Your task to perform on an android device: turn on the 24-hour format for clock Image 0: 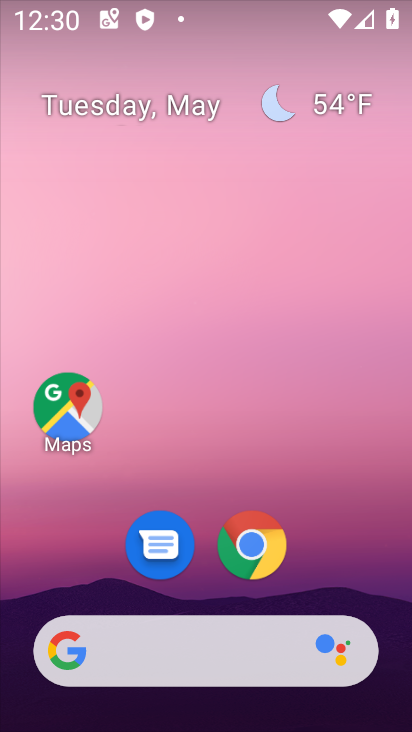
Step 0: drag from (337, 592) to (306, 102)
Your task to perform on an android device: turn on the 24-hour format for clock Image 1: 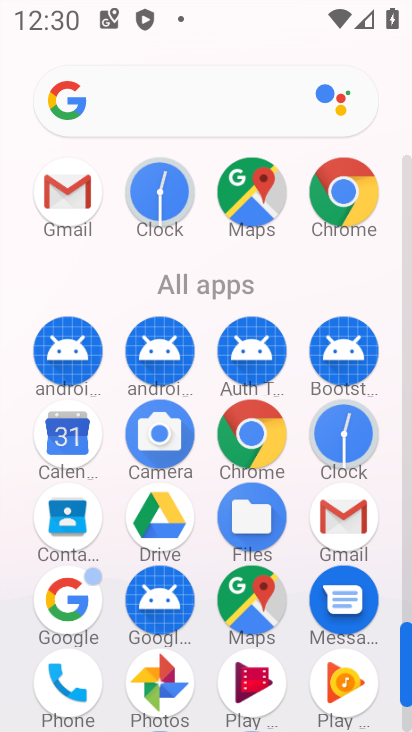
Step 1: click (330, 424)
Your task to perform on an android device: turn on the 24-hour format for clock Image 2: 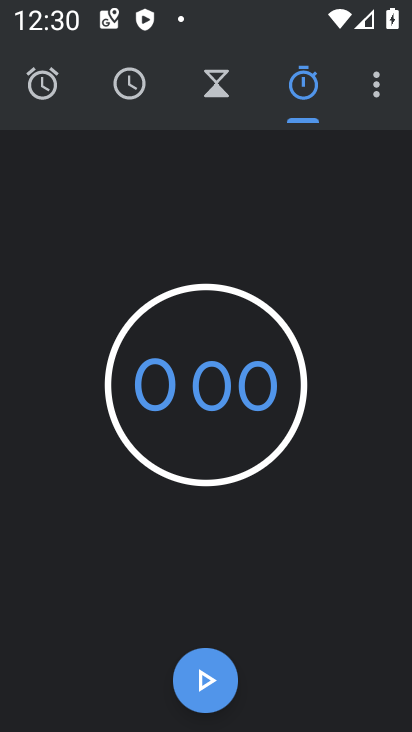
Step 2: click (372, 92)
Your task to perform on an android device: turn on the 24-hour format for clock Image 3: 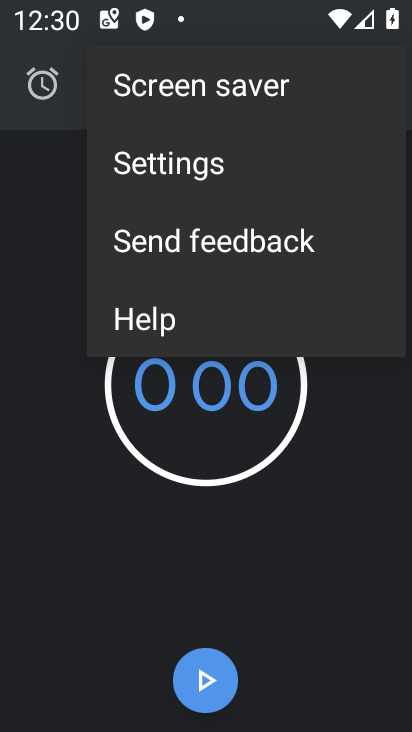
Step 3: click (224, 185)
Your task to perform on an android device: turn on the 24-hour format for clock Image 4: 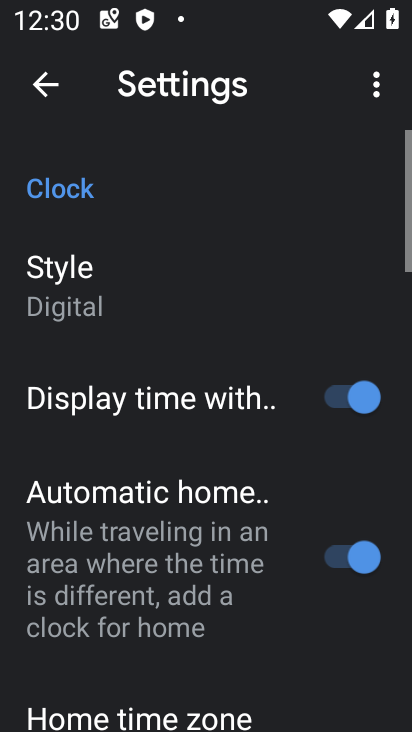
Step 4: drag from (213, 375) to (207, 53)
Your task to perform on an android device: turn on the 24-hour format for clock Image 5: 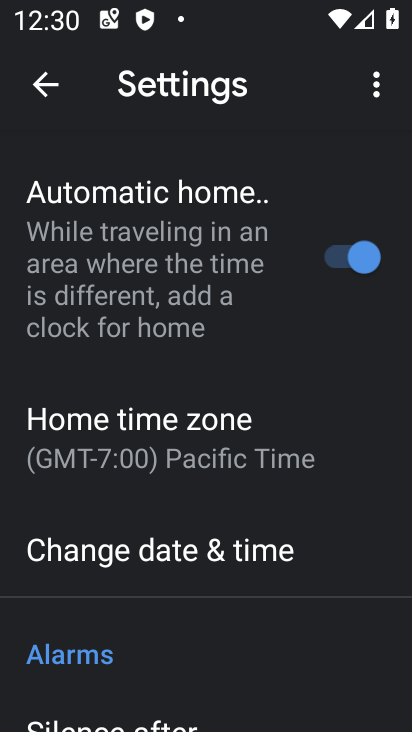
Step 5: click (70, 546)
Your task to perform on an android device: turn on the 24-hour format for clock Image 6: 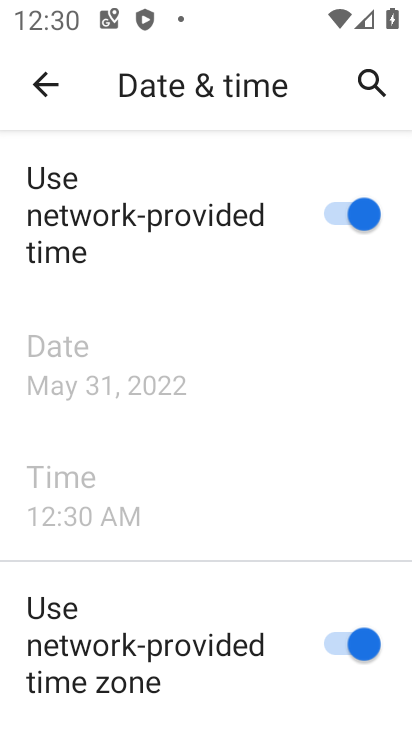
Step 6: drag from (163, 618) to (130, 136)
Your task to perform on an android device: turn on the 24-hour format for clock Image 7: 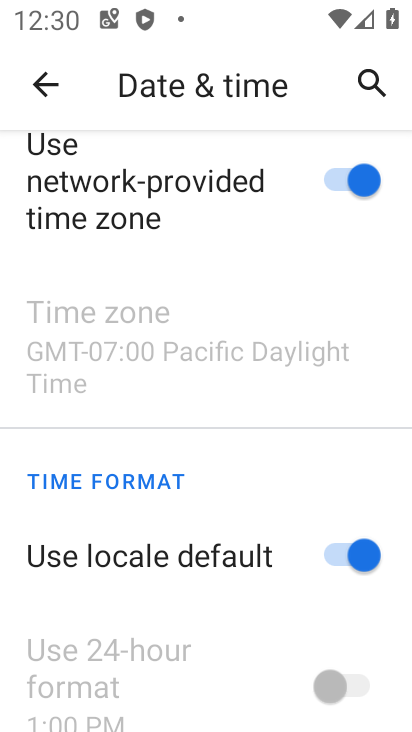
Step 7: click (333, 549)
Your task to perform on an android device: turn on the 24-hour format for clock Image 8: 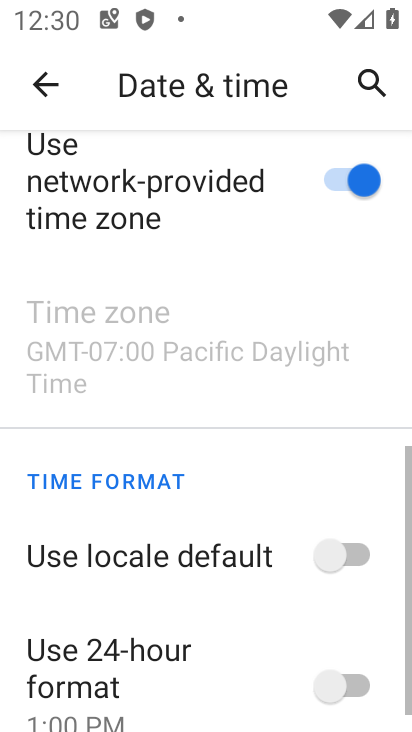
Step 8: click (348, 691)
Your task to perform on an android device: turn on the 24-hour format for clock Image 9: 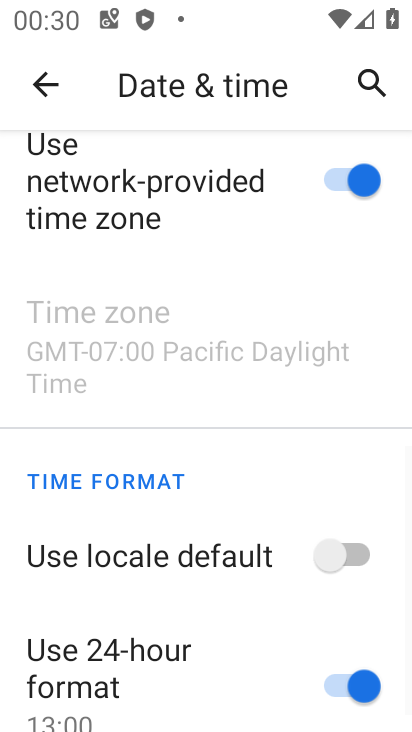
Step 9: task complete